Your task to perform on an android device: turn notification dots on Image 0: 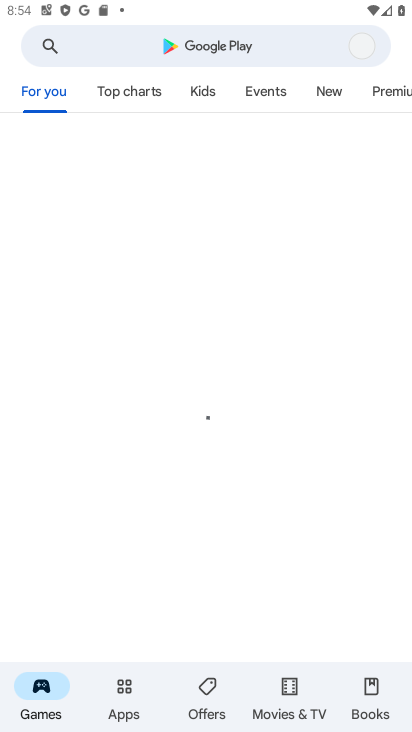
Step 0: press home button
Your task to perform on an android device: turn notification dots on Image 1: 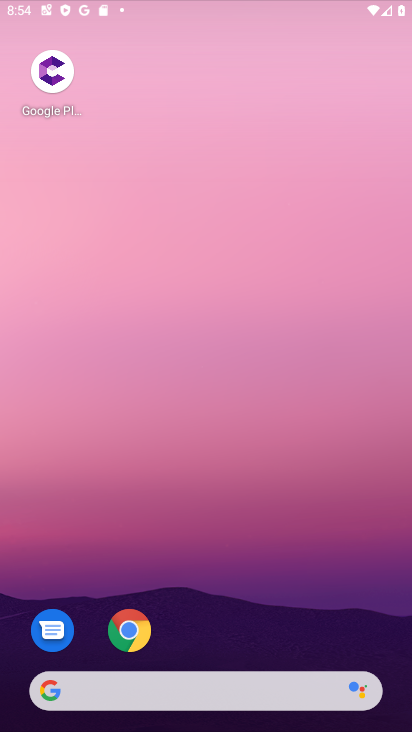
Step 1: drag from (196, 640) to (241, 108)
Your task to perform on an android device: turn notification dots on Image 2: 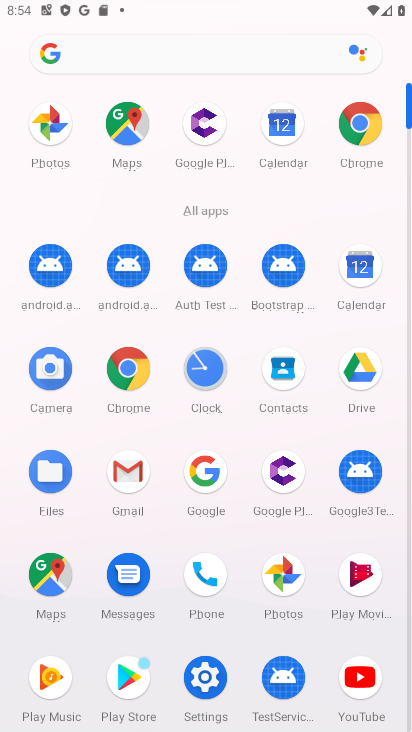
Step 2: click (202, 681)
Your task to perform on an android device: turn notification dots on Image 3: 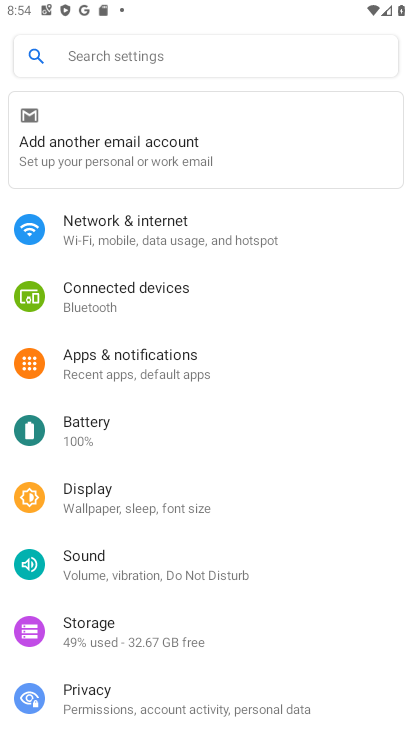
Step 3: click (159, 372)
Your task to perform on an android device: turn notification dots on Image 4: 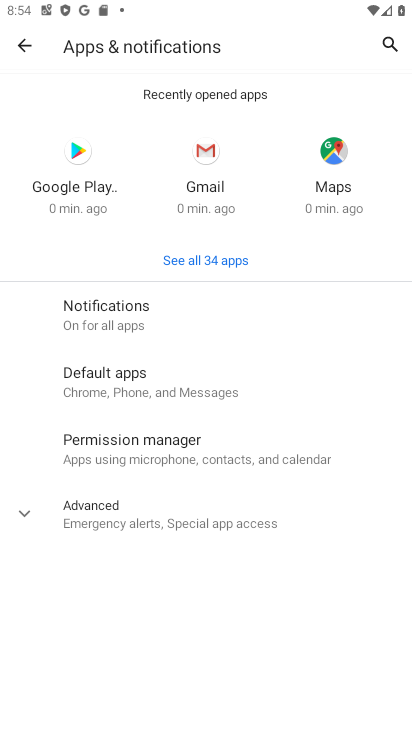
Step 4: click (112, 303)
Your task to perform on an android device: turn notification dots on Image 5: 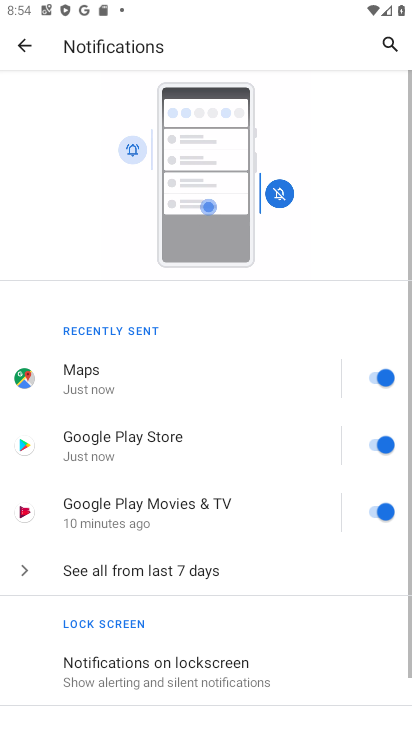
Step 5: drag from (150, 667) to (228, 313)
Your task to perform on an android device: turn notification dots on Image 6: 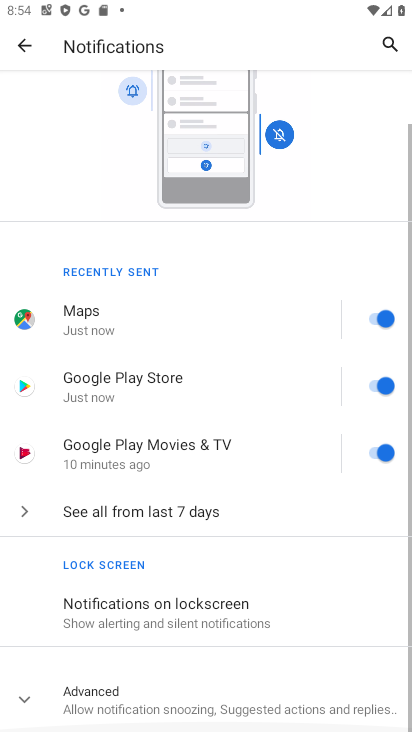
Step 6: drag from (107, 612) to (182, 336)
Your task to perform on an android device: turn notification dots on Image 7: 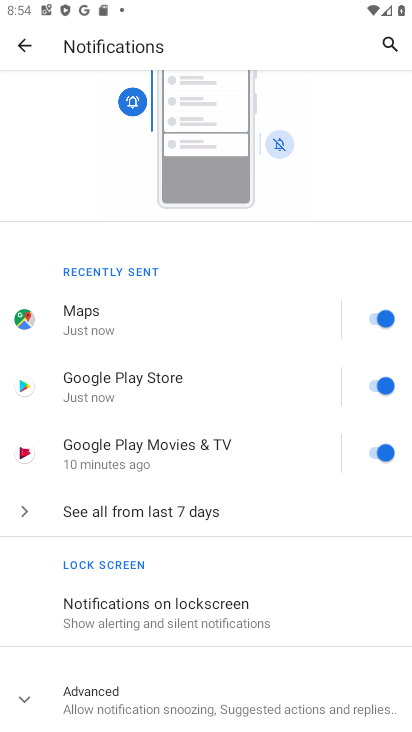
Step 7: click (68, 706)
Your task to perform on an android device: turn notification dots on Image 8: 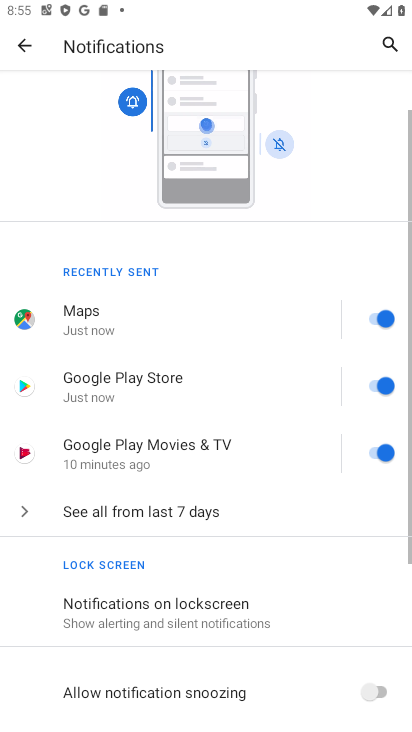
Step 8: task complete